Your task to perform on an android device: Search for seafood restaurants on Google Maps Image 0: 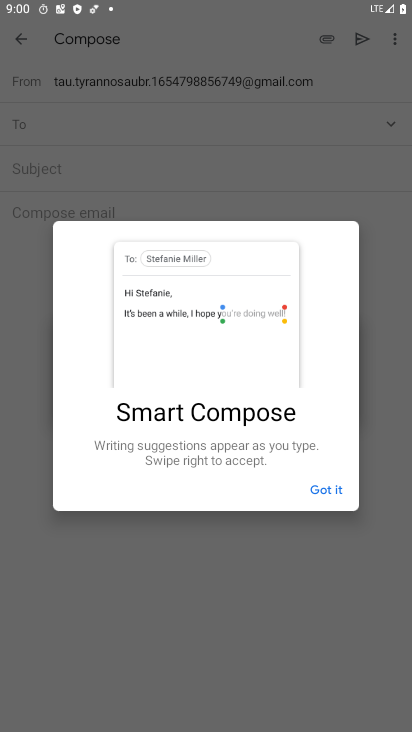
Step 0: press home button
Your task to perform on an android device: Search for seafood restaurants on Google Maps Image 1: 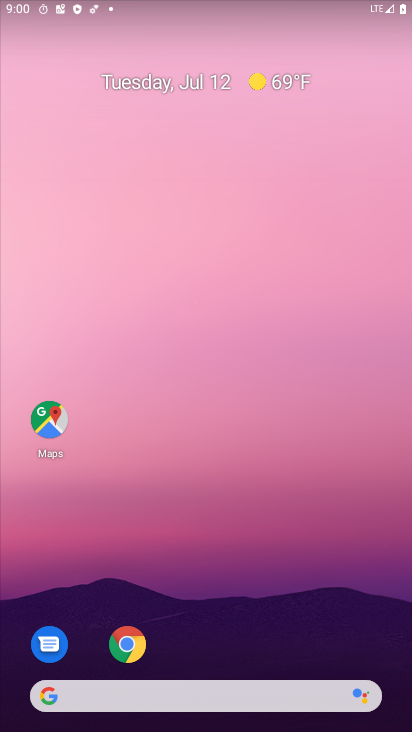
Step 1: click (47, 425)
Your task to perform on an android device: Search for seafood restaurants on Google Maps Image 2: 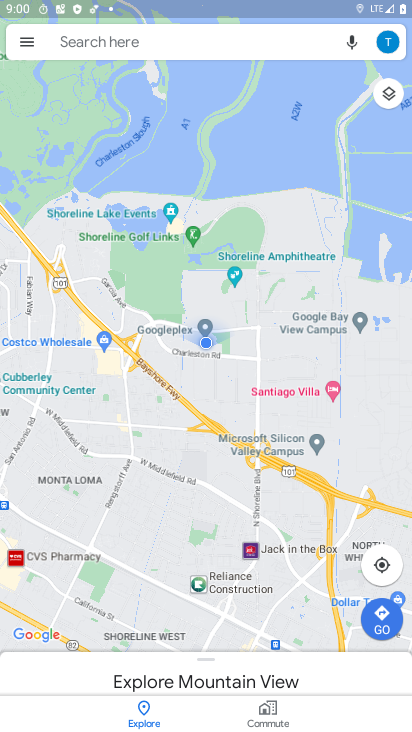
Step 2: click (111, 38)
Your task to perform on an android device: Search for seafood restaurants on Google Maps Image 3: 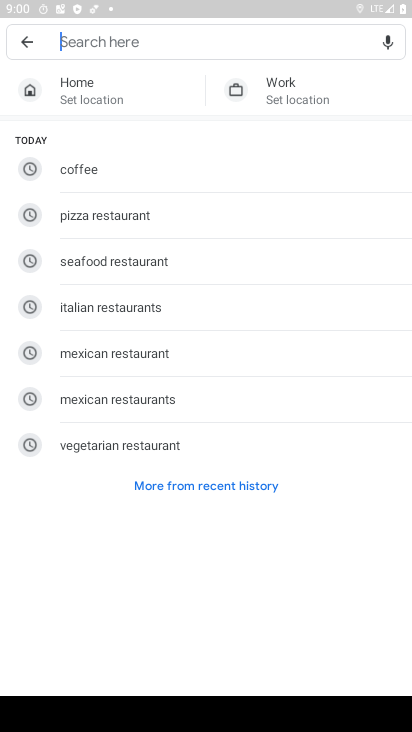
Step 3: click (113, 268)
Your task to perform on an android device: Search for seafood restaurants on Google Maps Image 4: 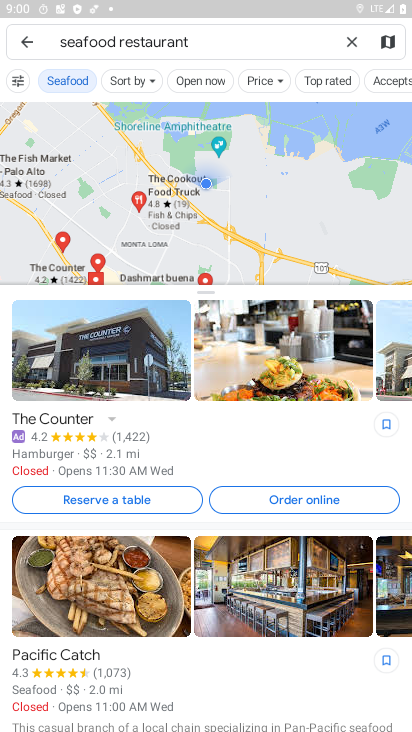
Step 4: task complete